Your task to perform on an android device: turn off location history Image 0: 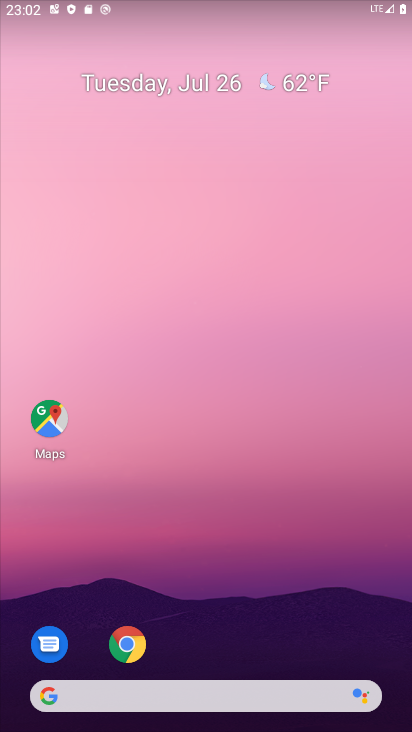
Step 0: click (57, 427)
Your task to perform on an android device: turn off location history Image 1: 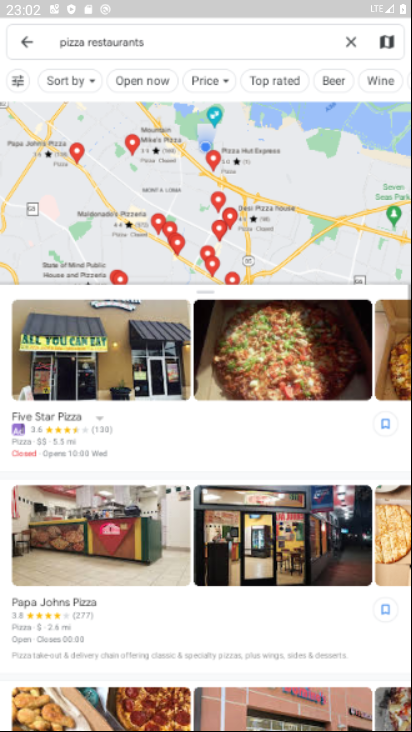
Step 1: click (350, 40)
Your task to perform on an android device: turn off location history Image 2: 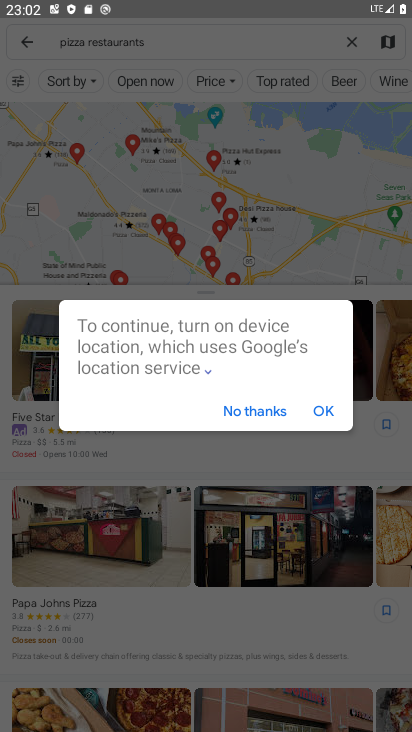
Step 2: click (248, 415)
Your task to perform on an android device: turn off location history Image 3: 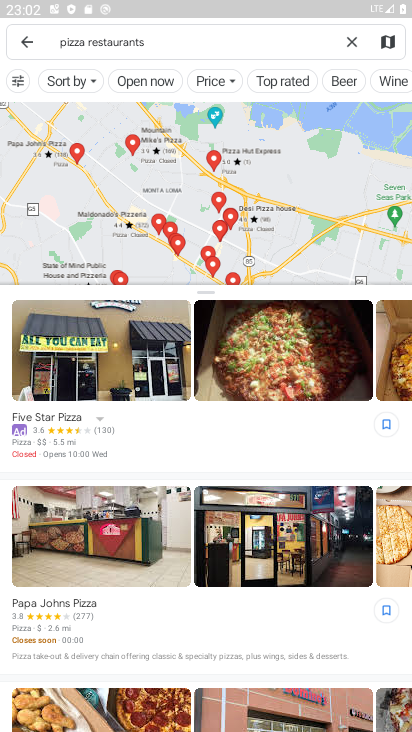
Step 3: click (350, 42)
Your task to perform on an android device: turn off location history Image 4: 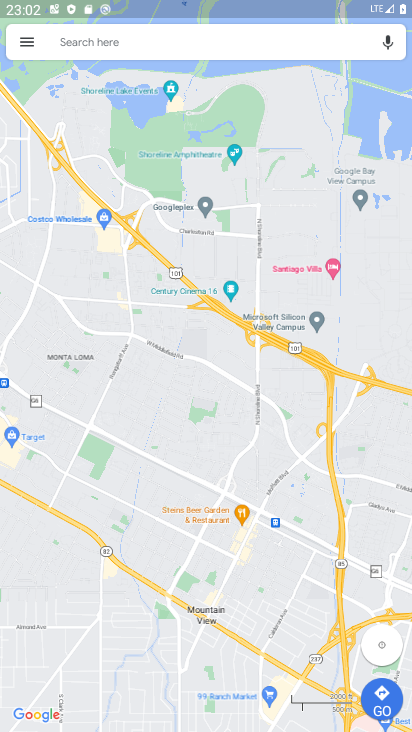
Step 4: click (24, 47)
Your task to perform on an android device: turn off location history Image 5: 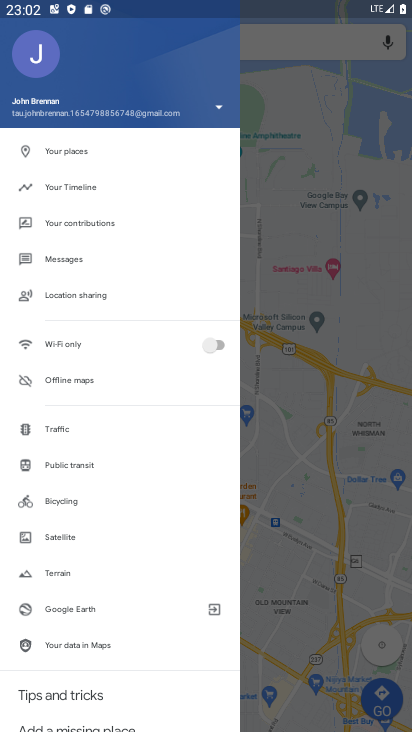
Step 5: click (67, 187)
Your task to perform on an android device: turn off location history Image 6: 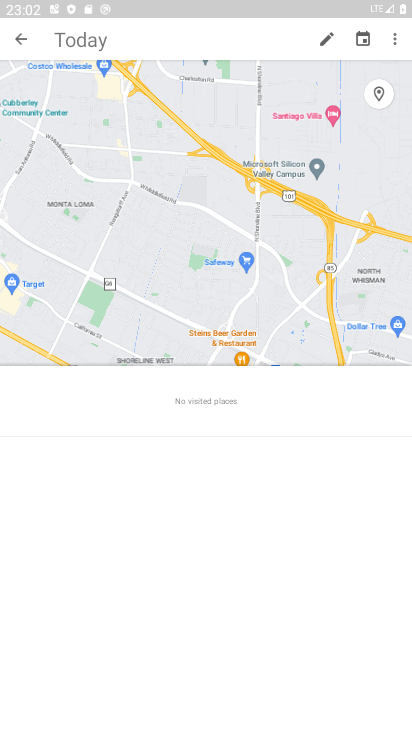
Step 6: click (397, 39)
Your task to perform on an android device: turn off location history Image 7: 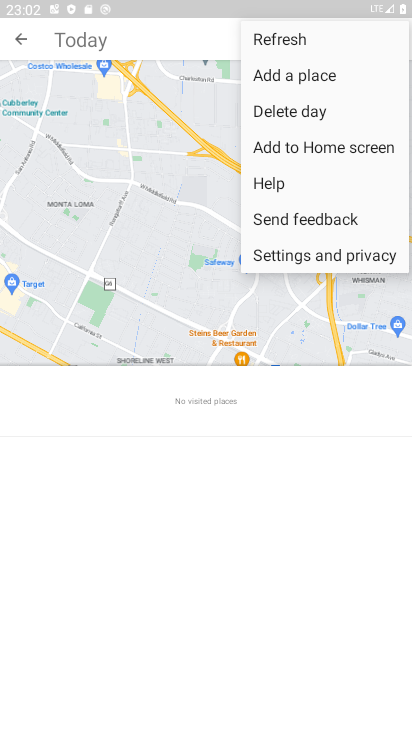
Step 7: click (294, 254)
Your task to perform on an android device: turn off location history Image 8: 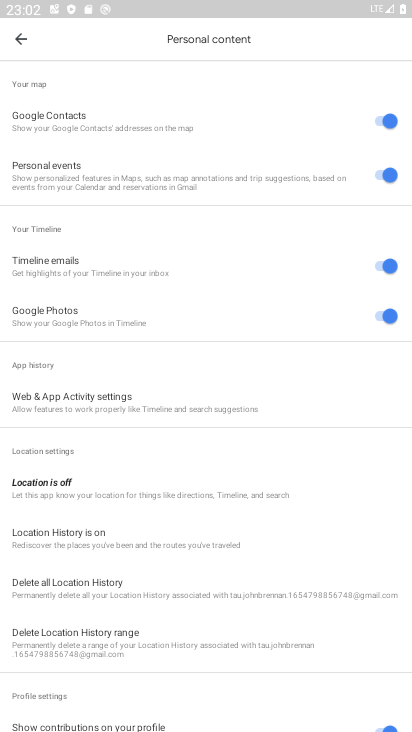
Step 8: click (48, 540)
Your task to perform on an android device: turn off location history Image 9: 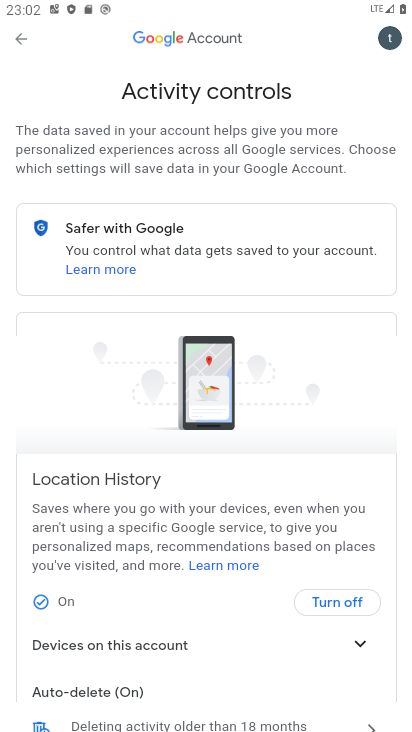
Step 9: click (344, 611)
Your task to perform on an android device: turn off location history Image 10: 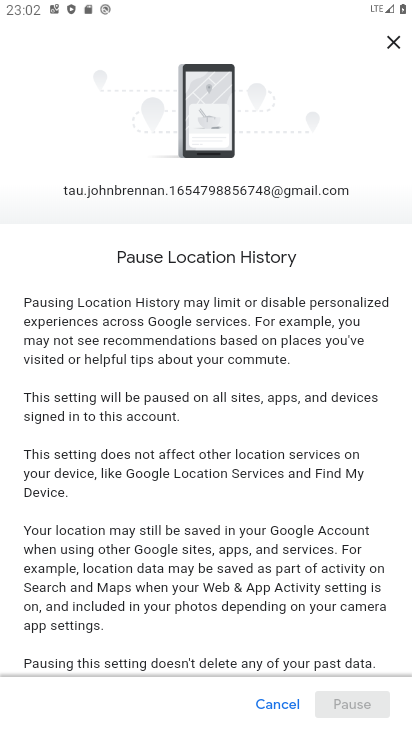
Step 10: drag from (263, 626) to (240, 255)
Your task to perform on an android device: turn off location history Image 11: 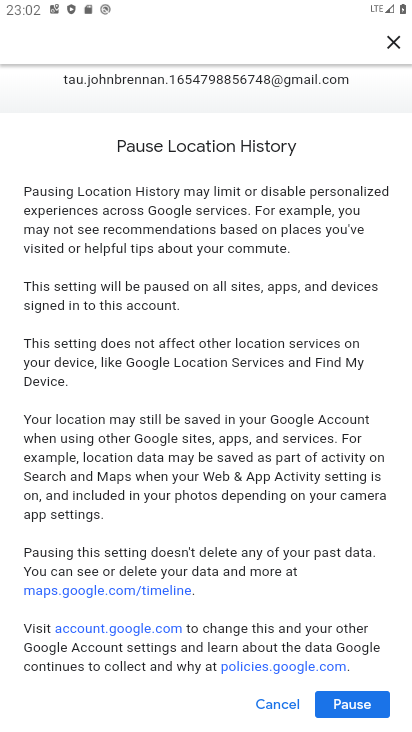
Step 11: click (340, 713)
Your task to perform on an android device: turn off location history Image 12: 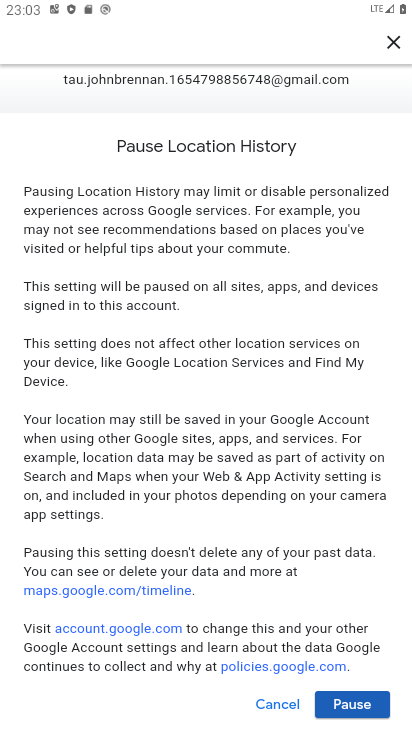
Step 12: click (347, 706)
Your task to perform on an android device: turn off location history Image 13: 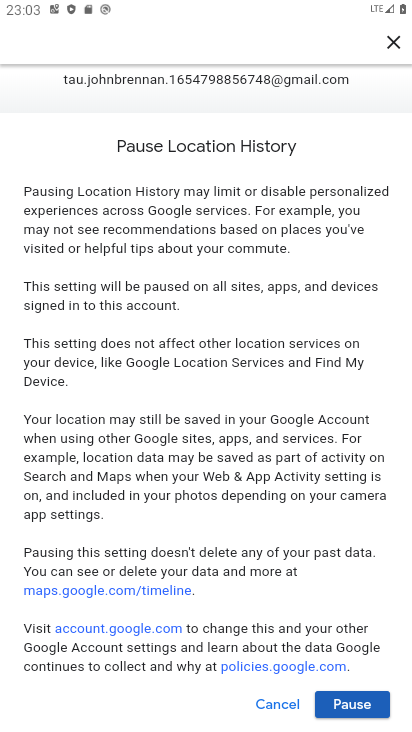
Step 13: drag from (312, 607) to (315, 496)
Your task to perform on an android device: turn off location history Image 14: 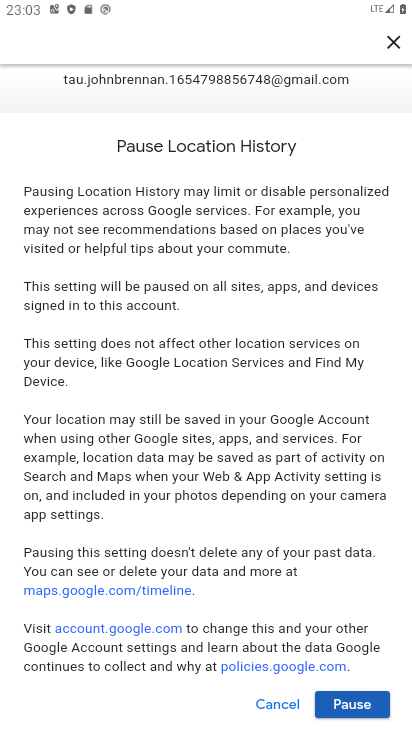
Step 14: click (359, 714)
Your task to perform on an android device: turn off location history Image 15: 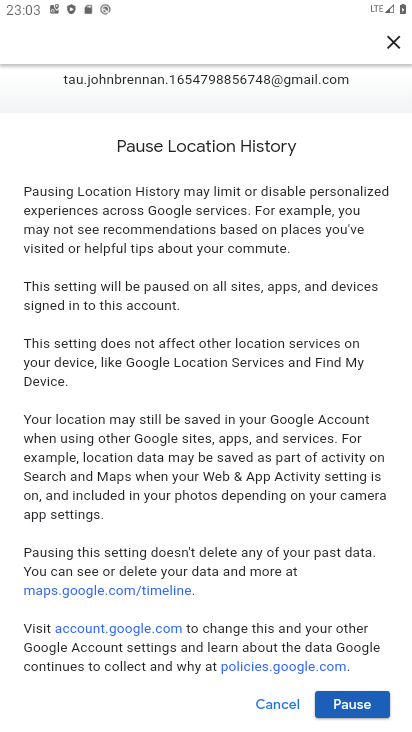
Step 15: click (356, 713)
Your task to perform on an android device: turn off location history Image 16: 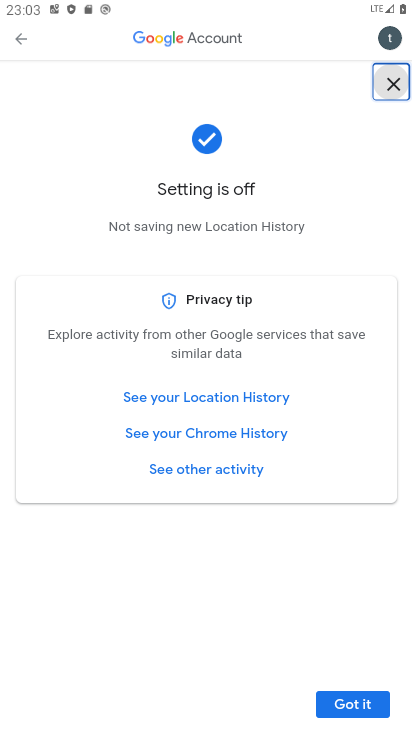
Step 16: click (365, 694)
Your task to perform on an android device: turn off location history Image 17: 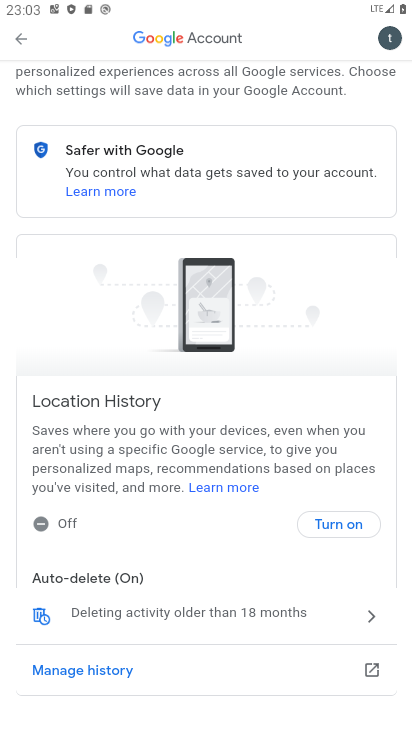
Step 17: task complete